Your task to perform on an android device: add a contact in the contacts app Image 0: 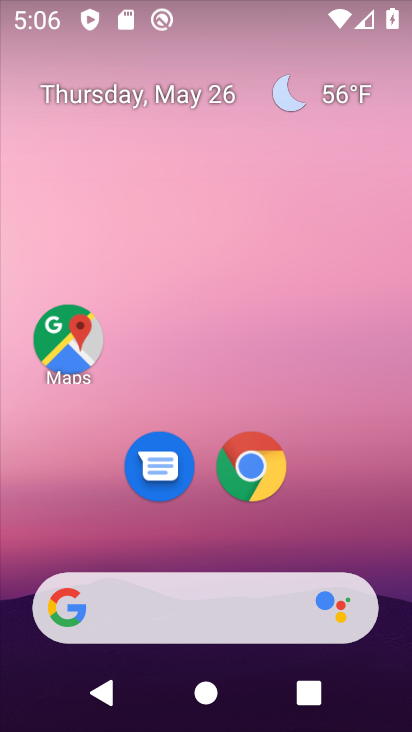
Step 0: drag from (299, 537) to (372, 90)
Your task to perform on an android device: add a contact in the contacts app Image 1: 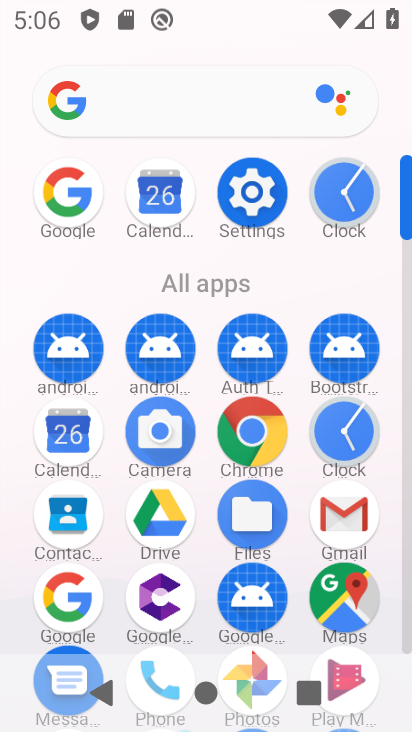
Step 1: click (46, 512)
Your task to perform on an android device: add a contact in the contacts app Image 2: 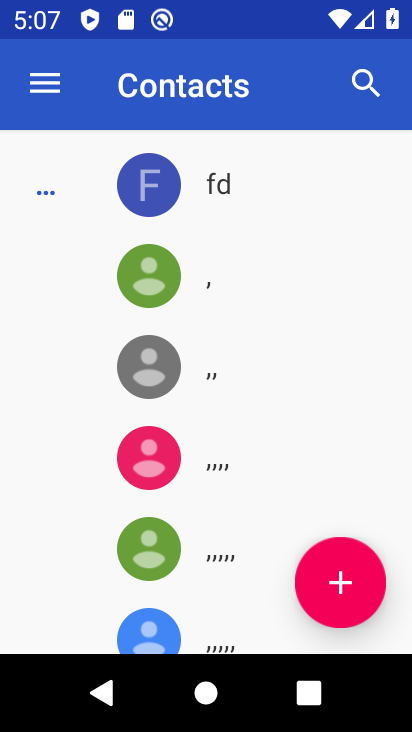
Step 2: click (330, 585)
Your task to perform on an android device: add a contact in the contacts app Image 3: 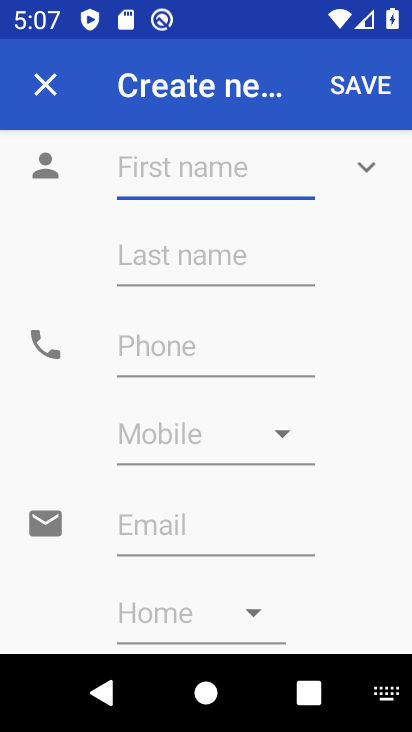
Step 3: type "mmah"
Your task to perform on an android device: add a contact in the contacts app Image 4: 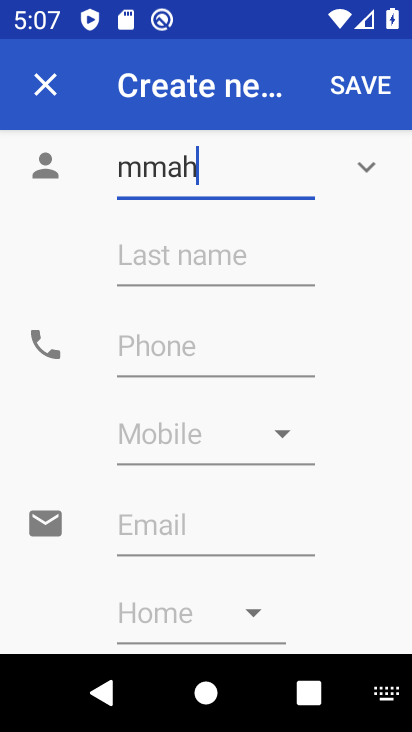
Step 4: click (237, 352)
Your task to perform on an android device: add a contact in the contacts app Image 5: 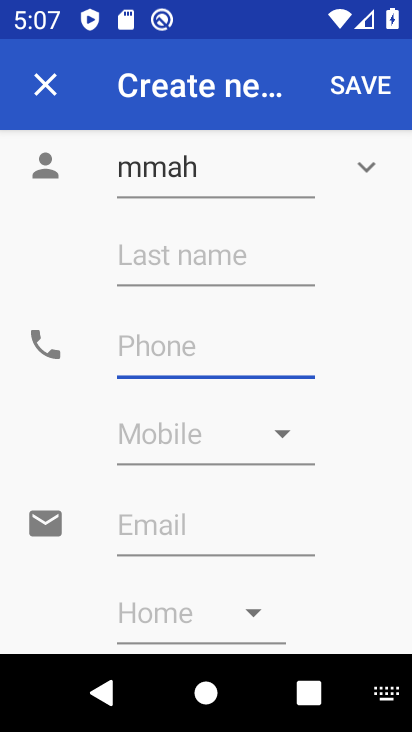
Step 5: type "8899"
Your task to perform on an android device: add a contact in the contacts app Image 6: 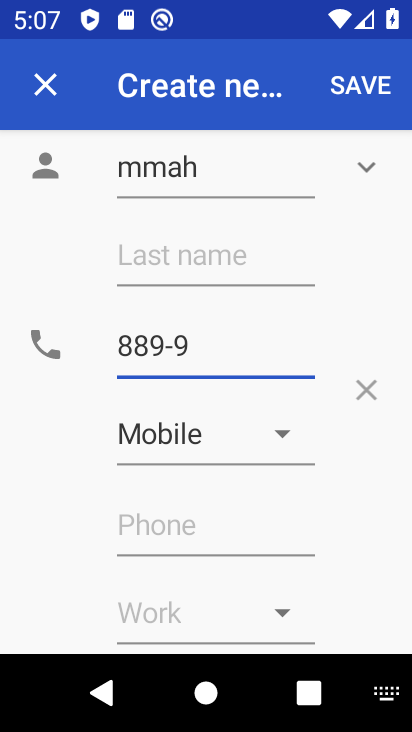
Step 6: click (374, 77)
Your task to perform on an android device: add a contact in the contacts app Image 7: 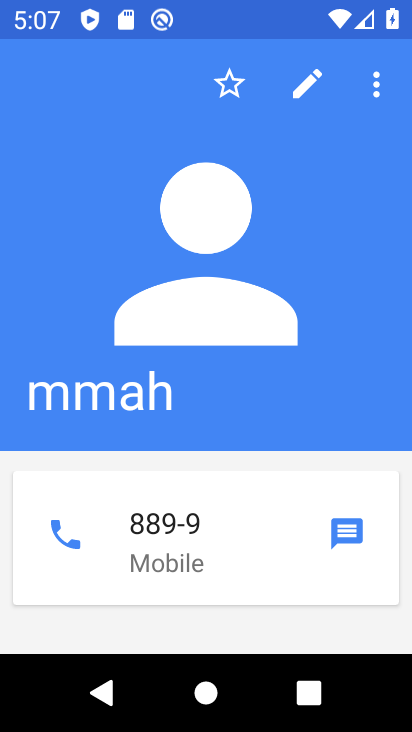
Step 7: task complete